Your task to perform on an android device: check google app version Image 0: 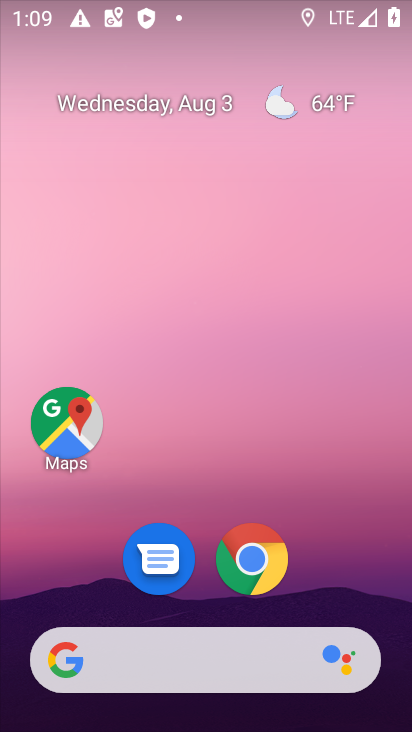
Step 0: drag from (193, 571) to (193, 124)
Your task to perform on an android device: check google app version Image 1: 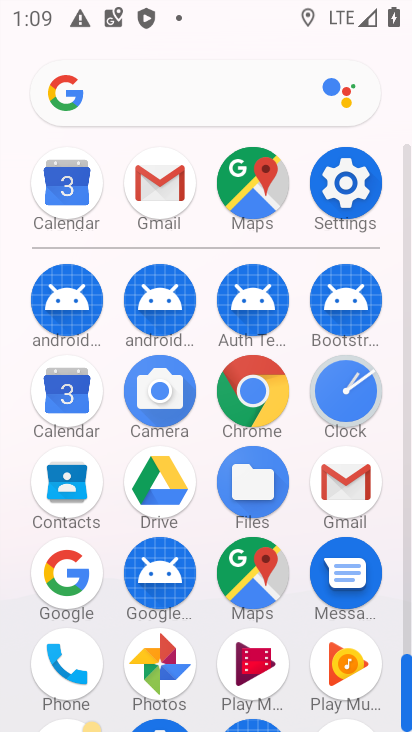
Step 1: click (60, 574)
Your task to perform on an android device: check google app version Image 2: 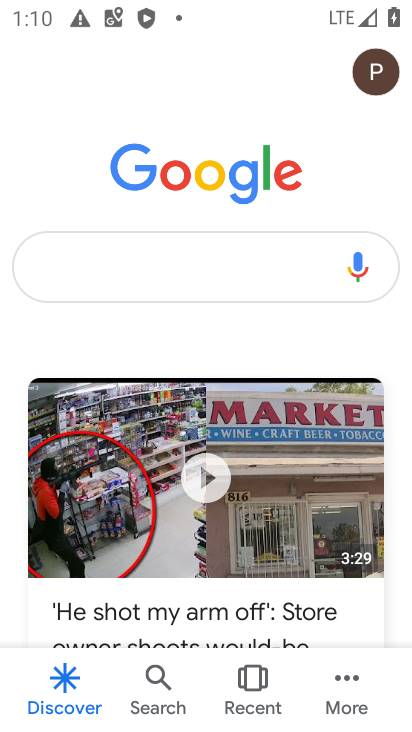
Step 2: click (346, 676)
Your task to perform on an android device: check google app version Image 3: 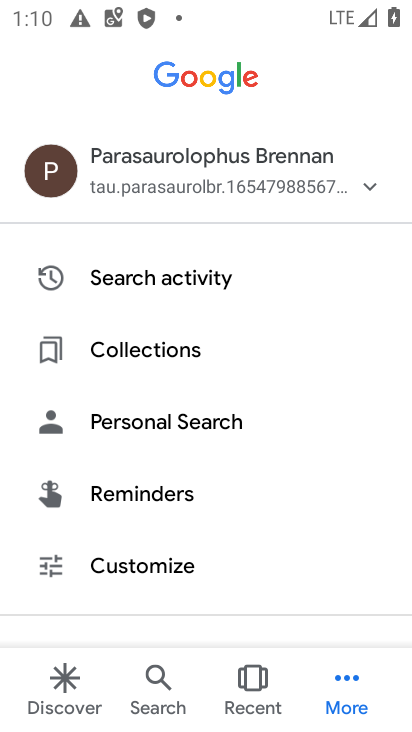
Step 3: drag from (119, 542) to (158, 250)
Your task to perform on an android device: check google app version Image 4: 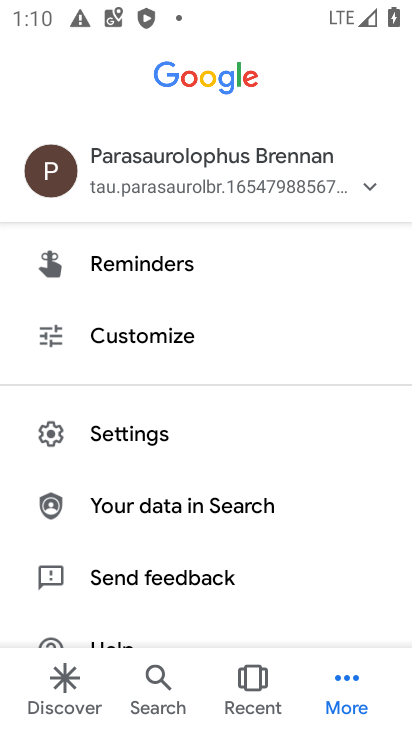
Step 4: drag from (163, 609) to (163, 214)
Your task to perform on an android device: check google app version Image 5: 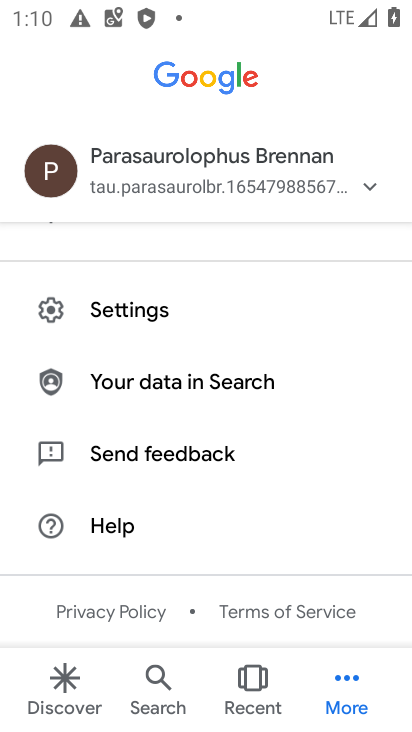
Step 5: click (127, 314)
Your task to perform on an android device: check google app version Image 6: 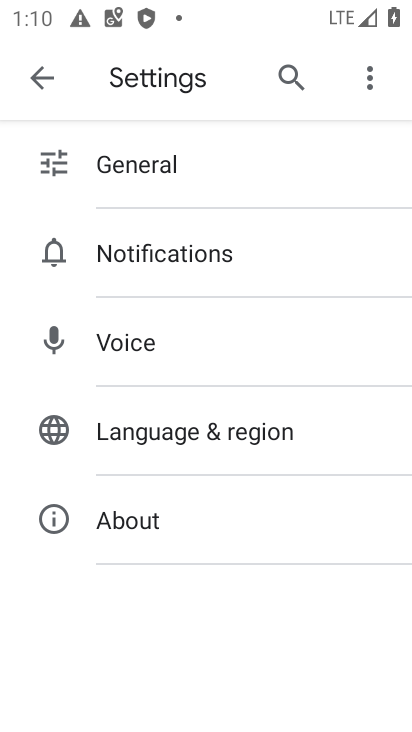
Step 6: click (124, 517)
Your task to perform on an android device: check google app version Image 7: 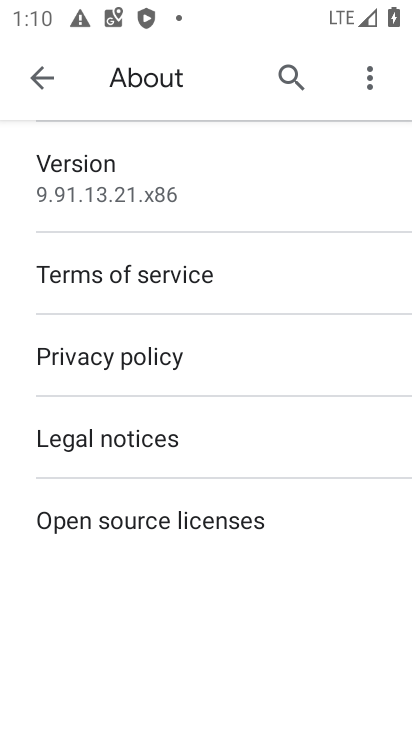
Step 7: task complete